Your task to perform on an android device: toggle location history Image 0: 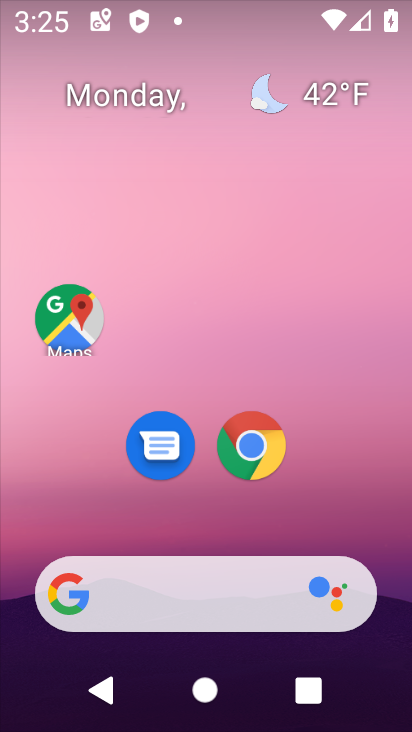
Step 0: drag from (22, 486) to (147, 39)
Your task to perform on an android device: toggle location history Image 1: 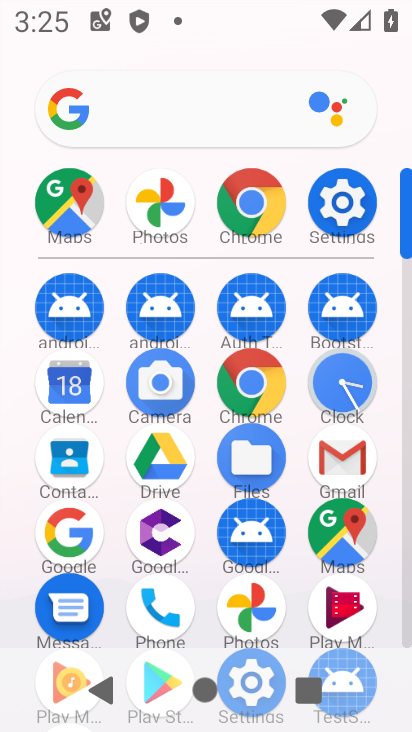
Step 1: click (344, 204)
Your task to perform on an android device: toggle location history Image 2: 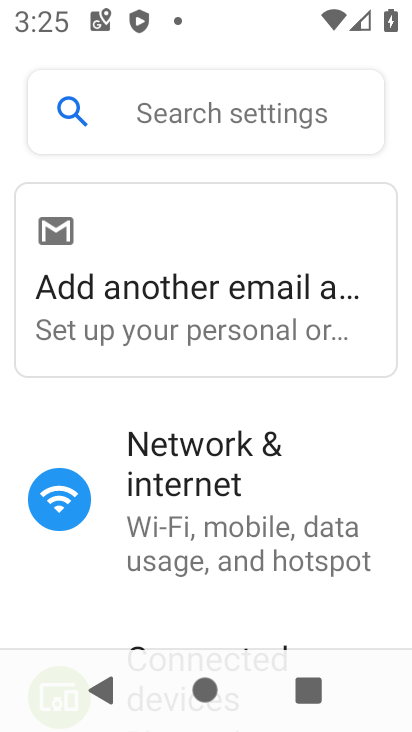
Step 2: drag from (212, 589) to (227, 117)
Your task to perform on an android device: toggle location history Image 3: 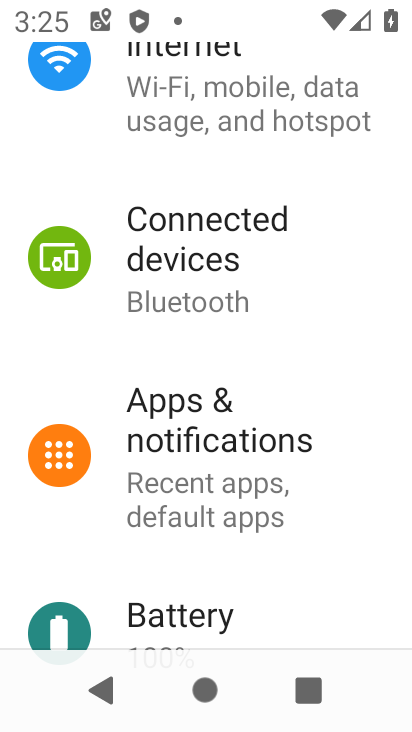
Step 3: drag from (257, 588) to (260, 98)
Your task to perform on an android device: toggle location history Image 4: 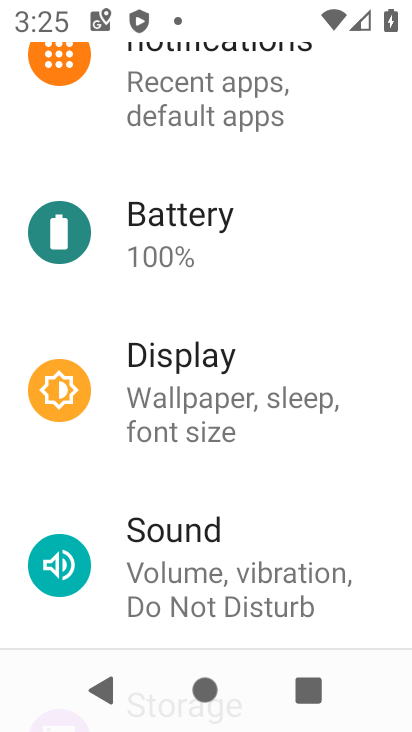
Step 4: drag from (198, 571) to (263, 122)
Your task to perform on an android device: toggle location history Image 5: 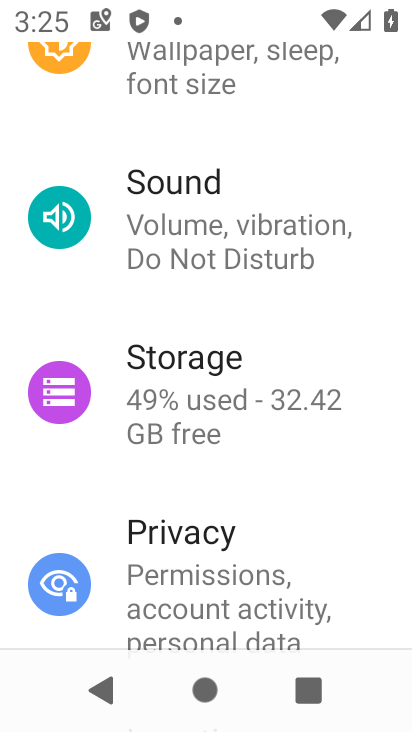
Step 5: drag from (170, 532) to (255, 113)
Your task to perform on an android device: toggle location history Image 6: 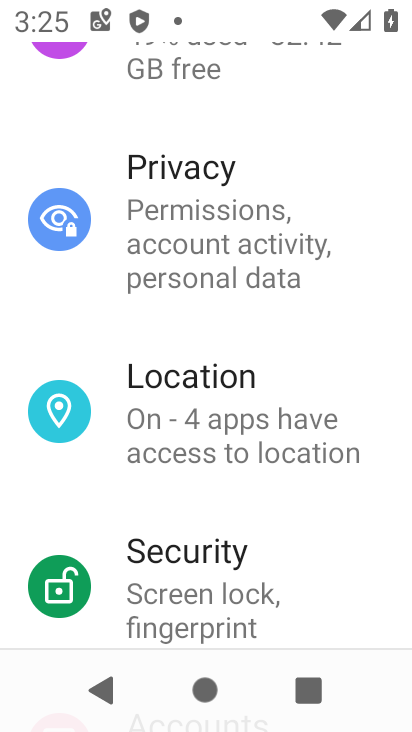
Step 6: click (221, 415)
Your task to perform on an android device: toggle location history Image 7: 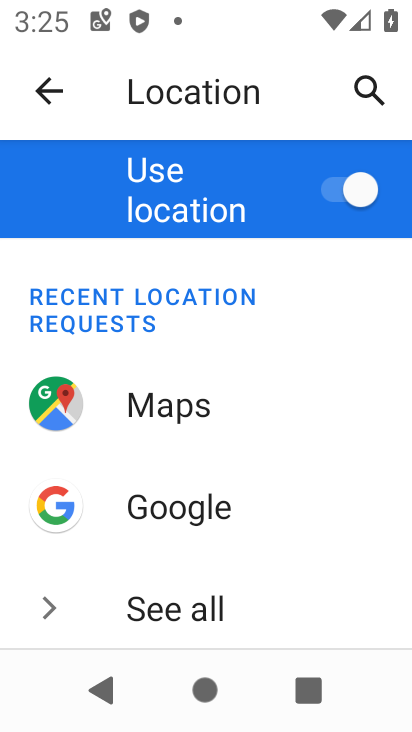
Step 7: drag from (74, 560) to (216, 66)
Your task to perform on an android device: toggle location history Image 8: 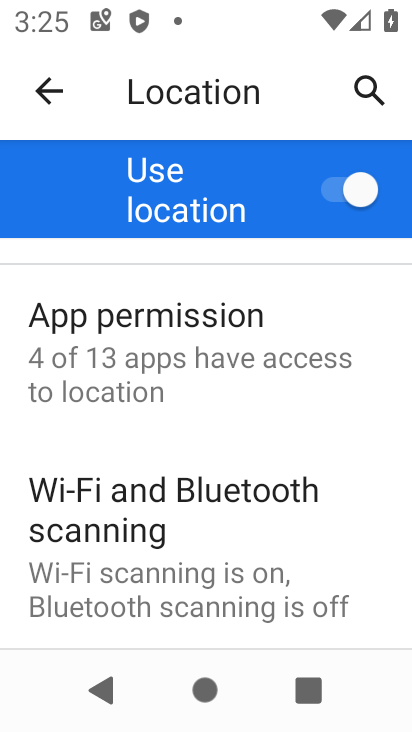
Step 8: drag from (155, 529) to (268, 162)
Your task to perform on an android device: toggle location history Image 9: 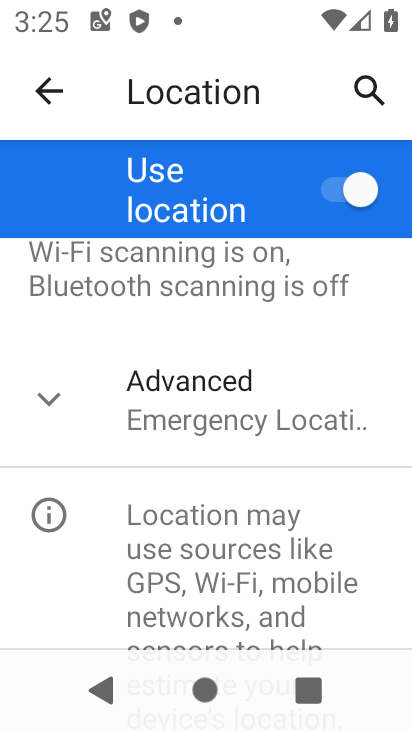
Step 9: click (49, 392)
Your task to perform on an android device: toggle location history Image 10: 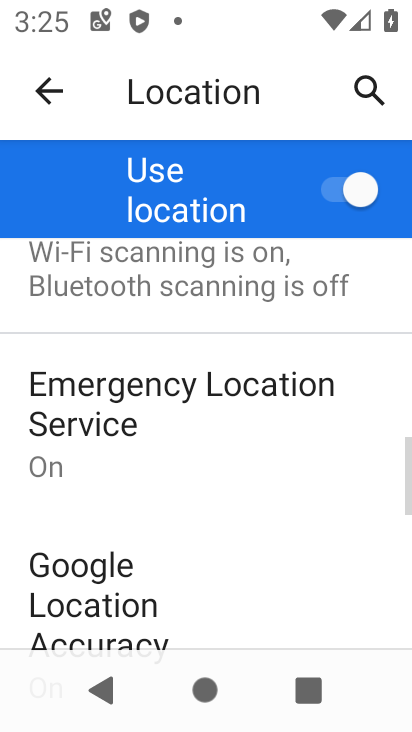
Step 10: drag from (94, 568) to (226, 214)
Your task to perform on an android device: toggle location history Image 11: 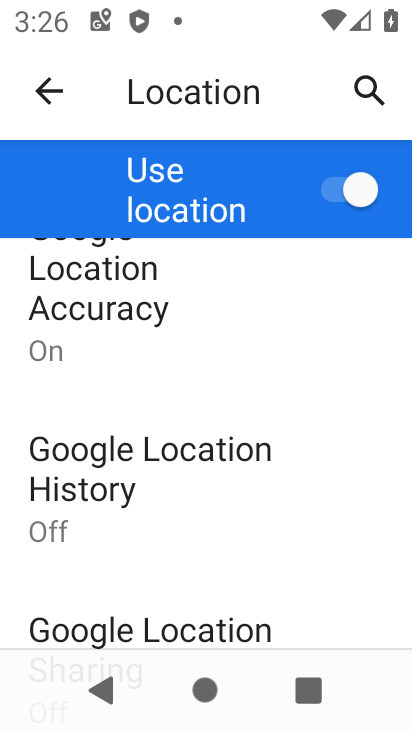
Step 11: click (202, 510)
Your task to perform on an android device: toggle location history Image 12: 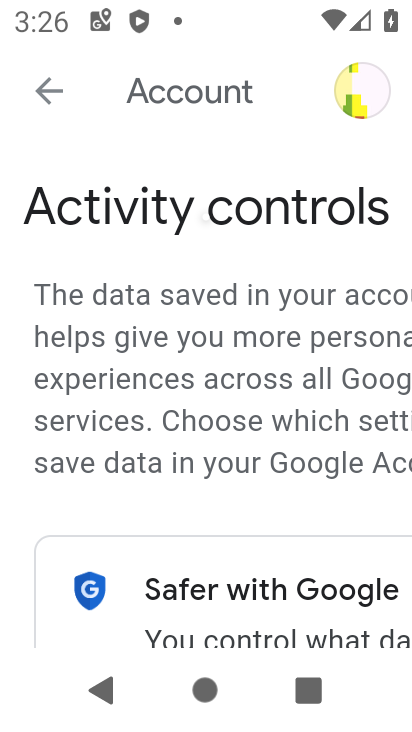
Step 12: drag from (292, 583) to (229, 153)
Your task to perform on an android device: toggle location history Image 13: 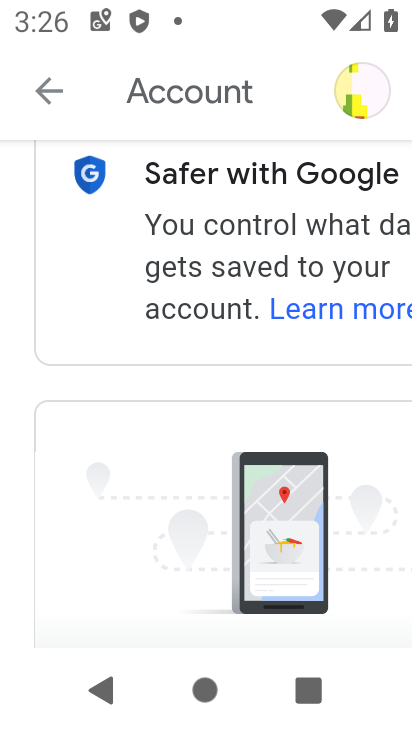
Step 13: drag from (283, 594) to (123, 95)
Your task to perform on an android device: toggle location history Image 14: 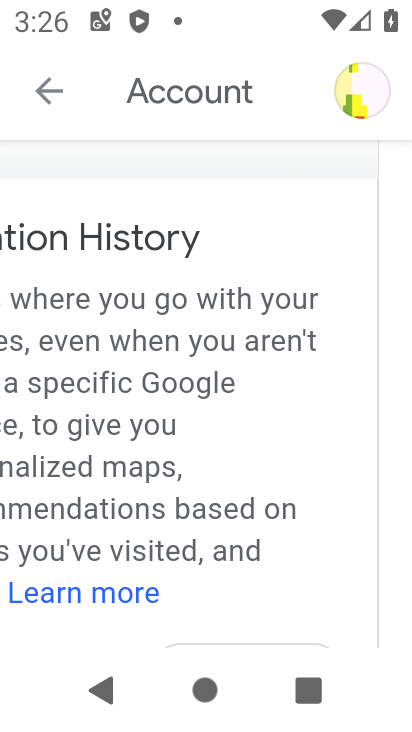
Step 14: drag from (203, 577) to (254, 178)
Your task to perform on an android device: toggle location history Image 15: 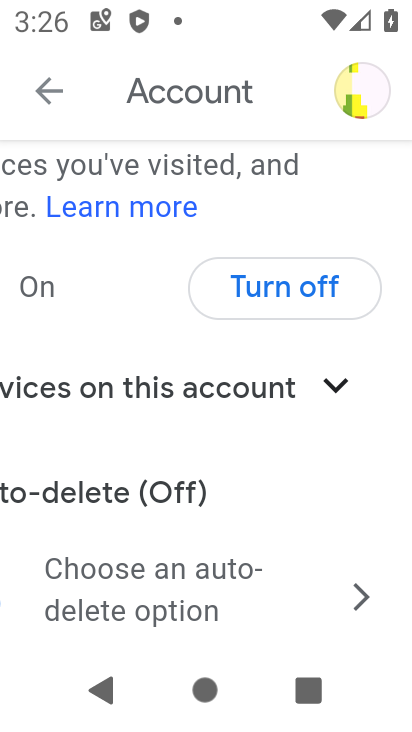
Step 15: click (279, 286)
Your task to perform on an android device: toggle location history Image 16: 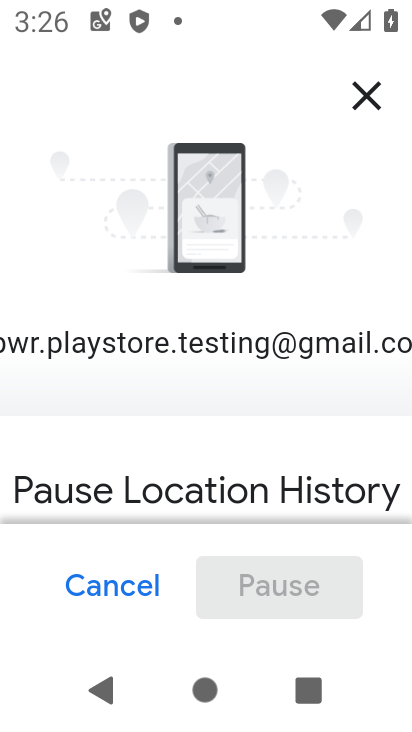
Step 16: task complete